Your task to perform on an android device: What's on my calendar today? Image 0: 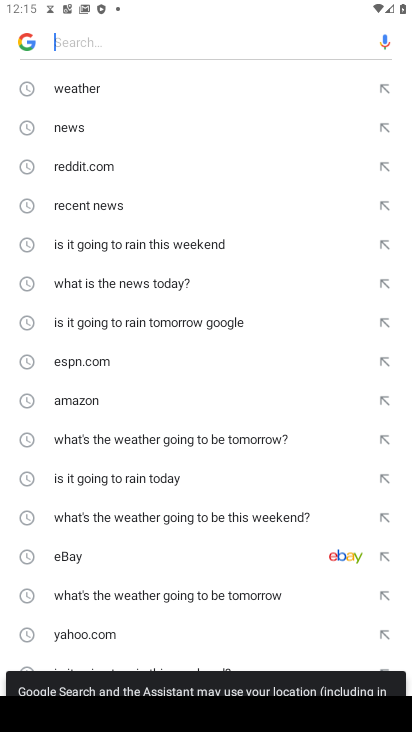
Step 0: press back button
Your task to perform on an android device: What's on my calendar today? Image 1: 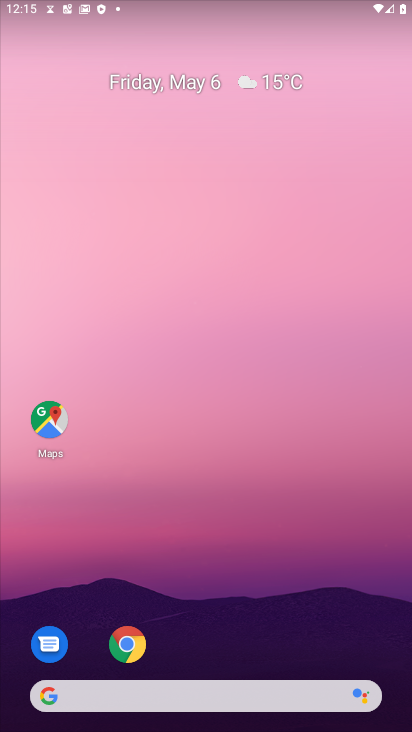
Step 1: drag from (278, 559) to (269, 16)
Your task to perform on an android device: What's on my calendar today? Image 2: 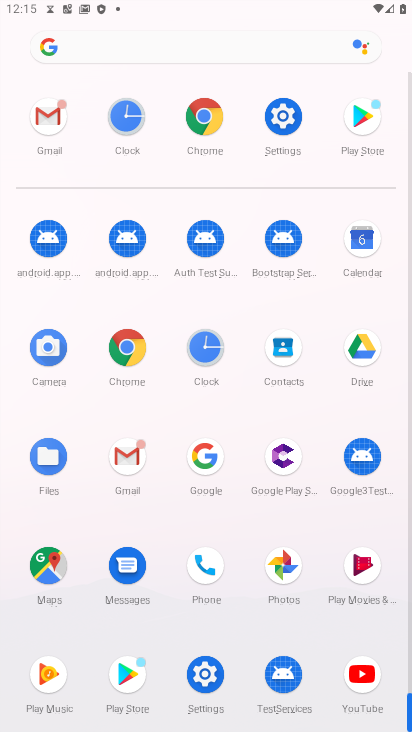
Step 2: drag from (16, 536) to (15, 263)
Your task to perform on an android device: What's on my calendar today? Image 3: 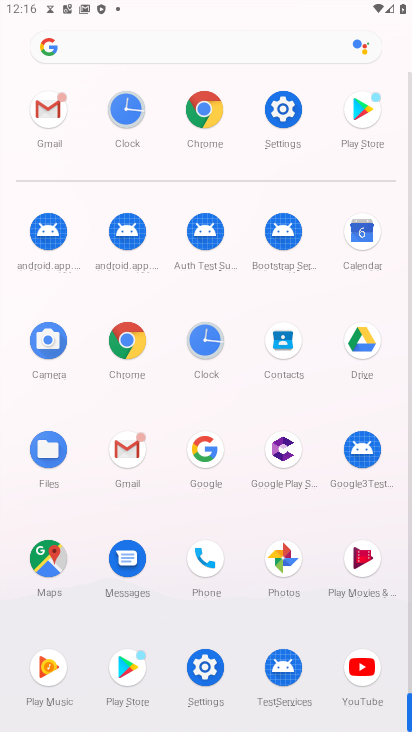
Step 3: click (359, 229)
Your task to perform on an android device: What's on my calendar today? Image 4: 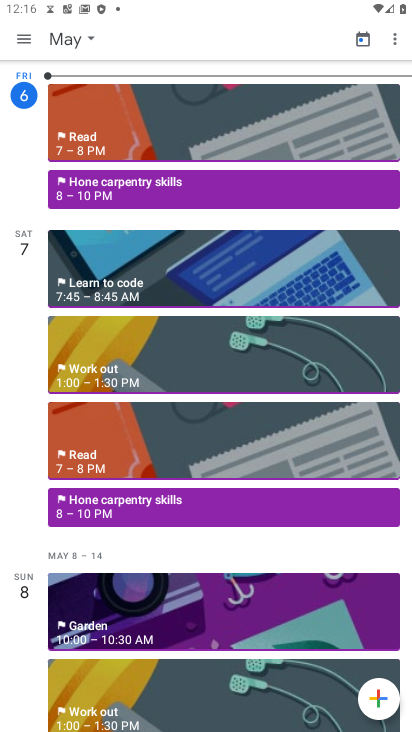
Step 4: click (364, 37)
Your task to perform on an android device: What's on my calendar today? Image 5: 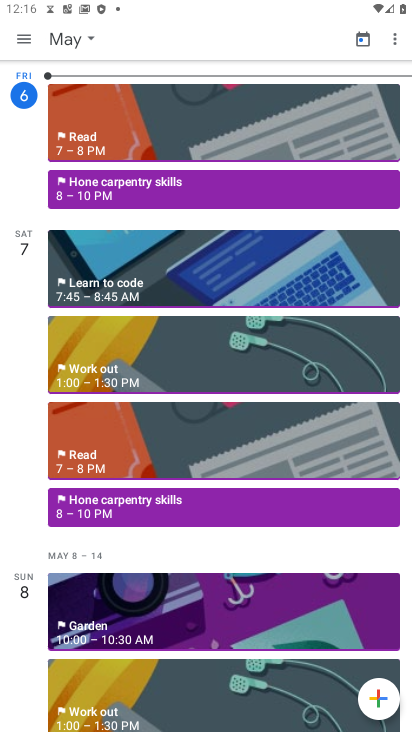
Step 5: click (25, 38)
Your task to perform on an android device: What's on my calendar today? Image 6: 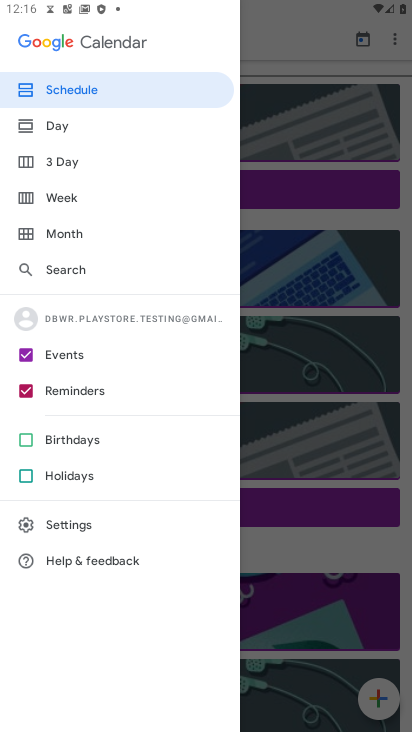
Step 6: click (76, 126)
Your task to perform on an android device: What's on my calendar today? Image 7: 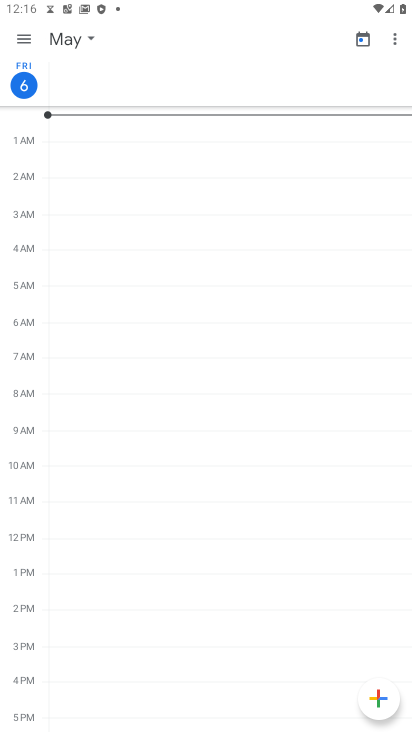
Step 7: task complete